Your task to perform on an android device: What's the weather going to be this weekend? Image 0: 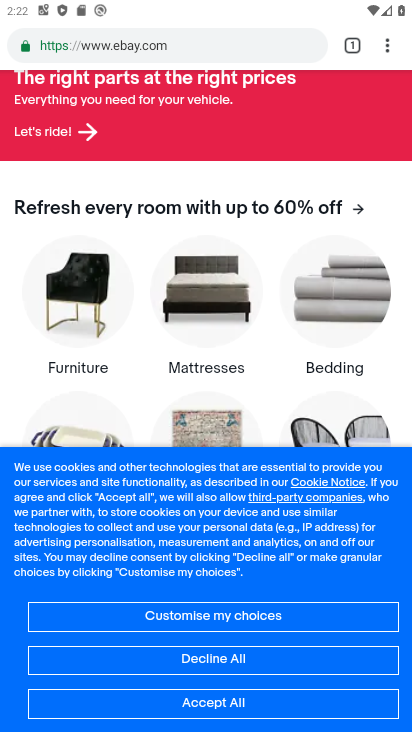
Step 0: press home button
Your task to perform on an android device: What's the weather going to be this weekend? Image 1: 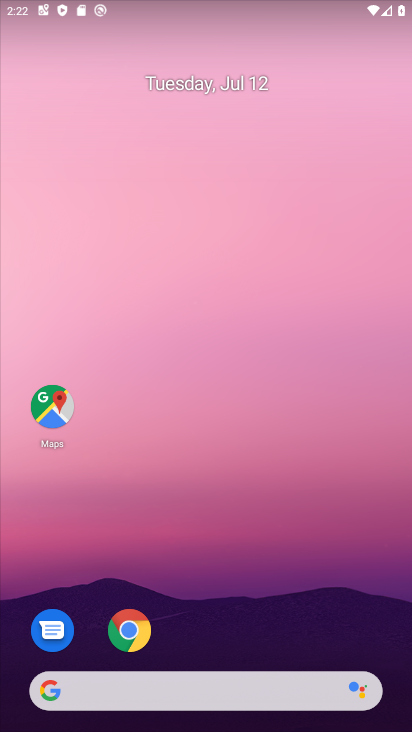
Step 1: click (307, 619)
Your task to perform on an android device: What's the weather going to be this weekend? Image 2: 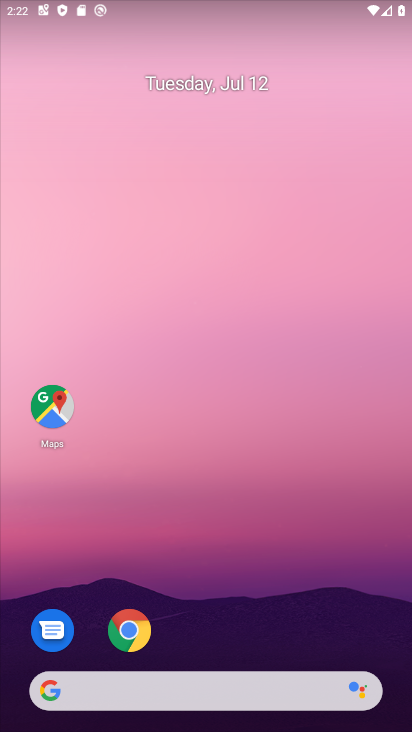
Step 2: drag from (12, 255) to (384, 259)
Your task to perform on an android device: What's the weather going to be this weekend? Image 3: 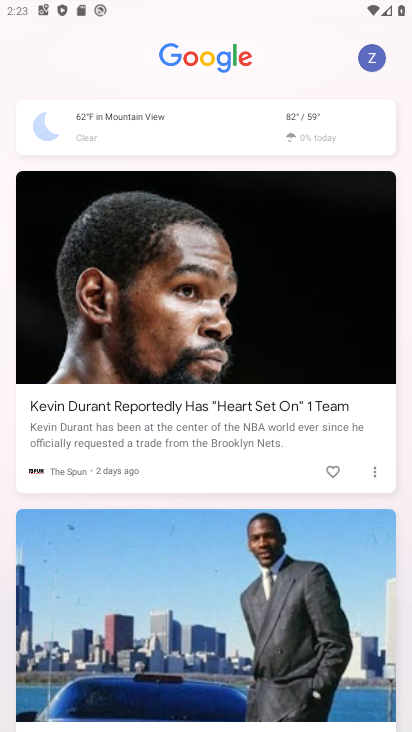
Step 3: click (295, 119)
Your task to perform on an android device: What's the weather going to be this weekend? Image 4: 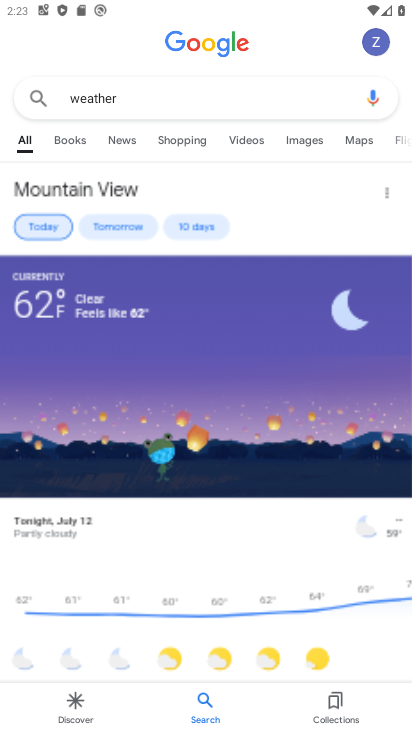
Step 4: click (195, 222)
Your task to perform on an android device: What's the weather going to be this weekend? Image 5: 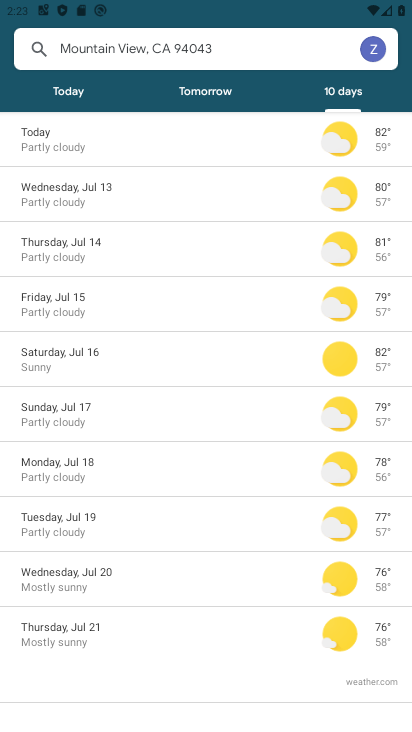
Step 5: task complete